Your task to perform on an android device: all mails in gmail Image 0: 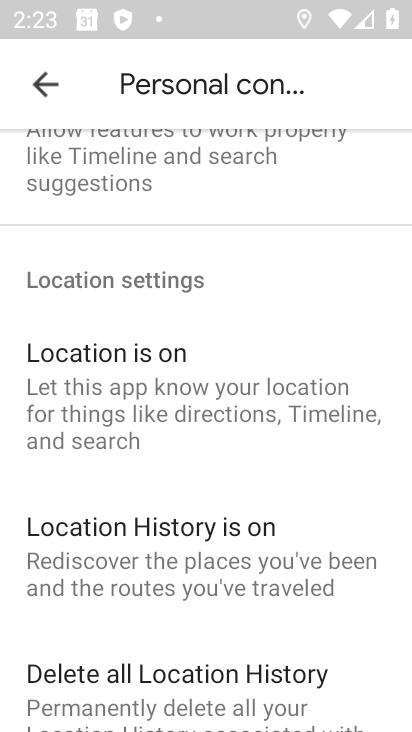
Step 0: press home button
Your task to perform on an android device: all mails in gmail Image 1: 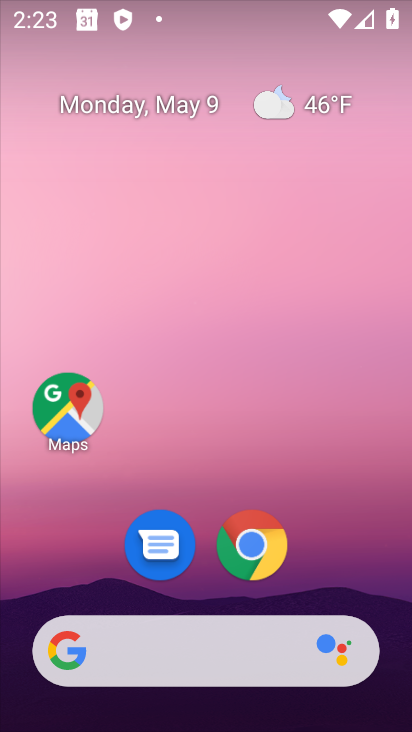
Step 1: drag from (210, 528) to (258, 130)
Your task to perform on an android device: all mails in gmail Image 2: 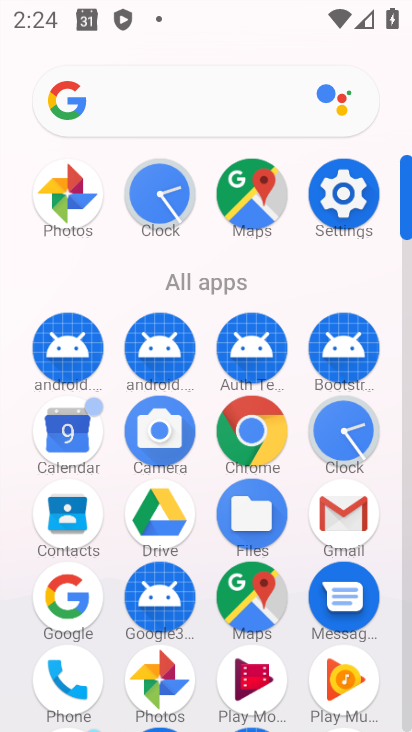
Step 2: click (325, 504)
Your task to perform on an android device: all mails in gmail Image 3: 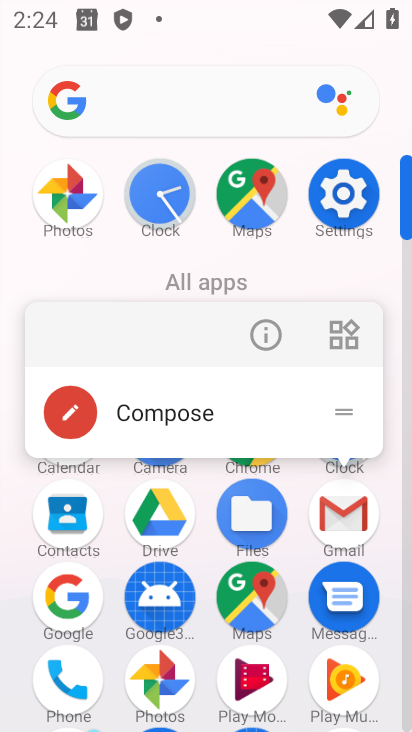
Step 3: click (340, 498)
Your task to perform on an android device: all mails in gmail Image 4: 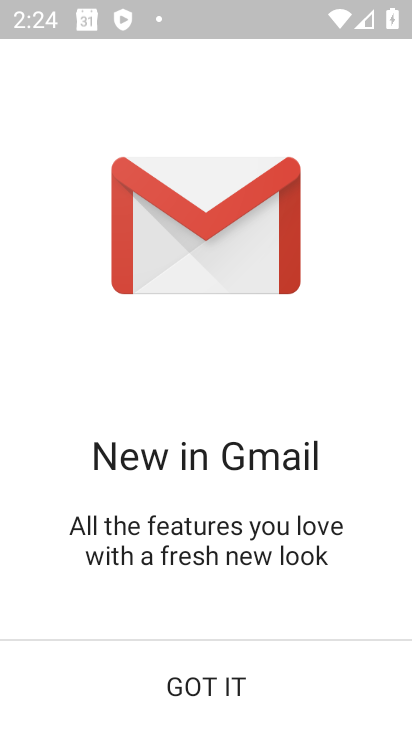
Step 4: click (202, 669)
Your task to perform on an android device: all mails in gmail Image 5: 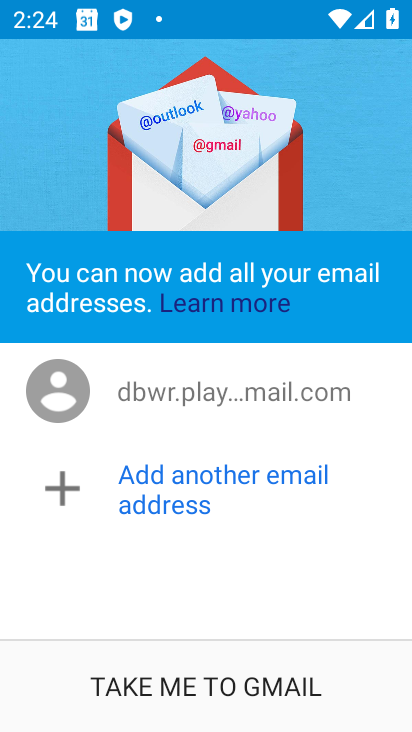
Step 5: click (202, 669)
Your task to perform on an android device: all mails in gmail Image 6: 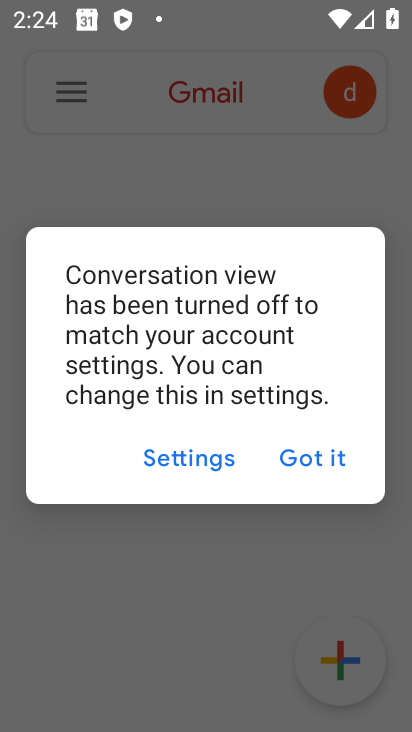
Step 6: click (291, 464)
Your task to perform on an android device: all mails in gmail Image 7: 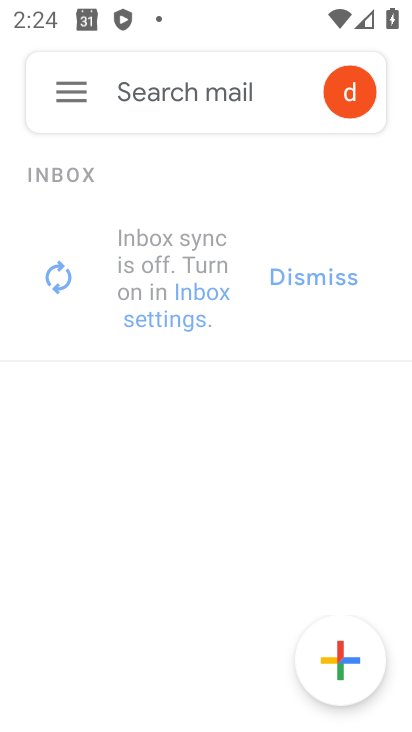
Step 7: click (75, 82)
Your task to perform on an android device: all mails in gmail Image 8: 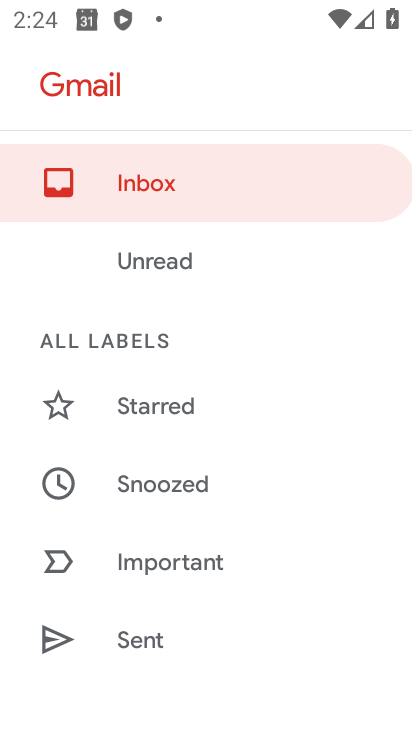
Step 8: drag from (237, 589) to (298, 343)
Your task to perform on an android device: all mails in gmail Image 9: 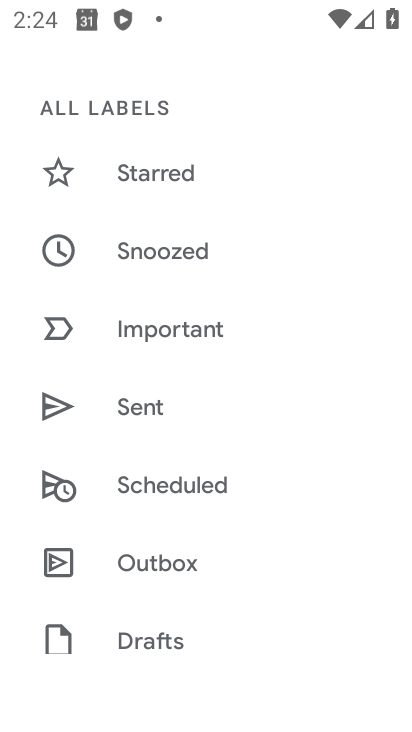
Step 9: drag from (260, 571) to (327, 283)
Your task to perform on an android device: all mails in gmail Image 10: 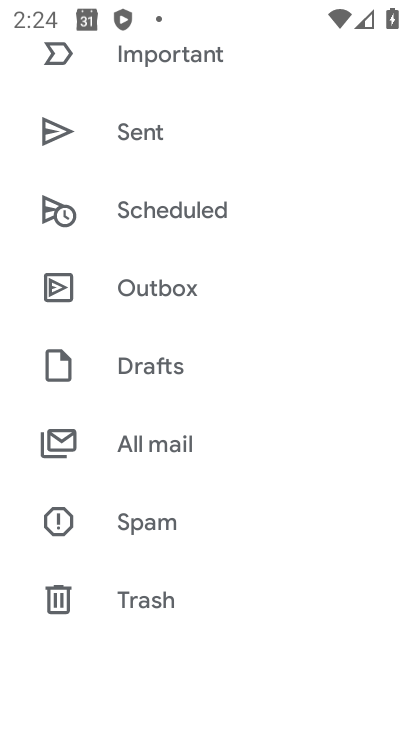
Step 10: click (179, 475)
Your task to perform on an android device: all mails in gmail Image 11: 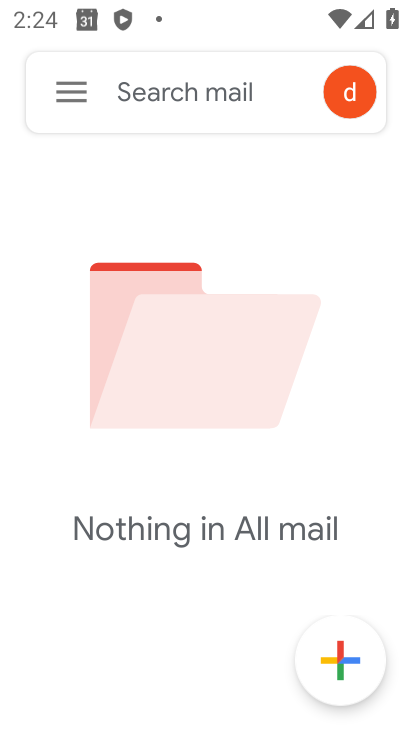
Step 11: task complete